Your task to perform on an android device: set an alarm Image 0: 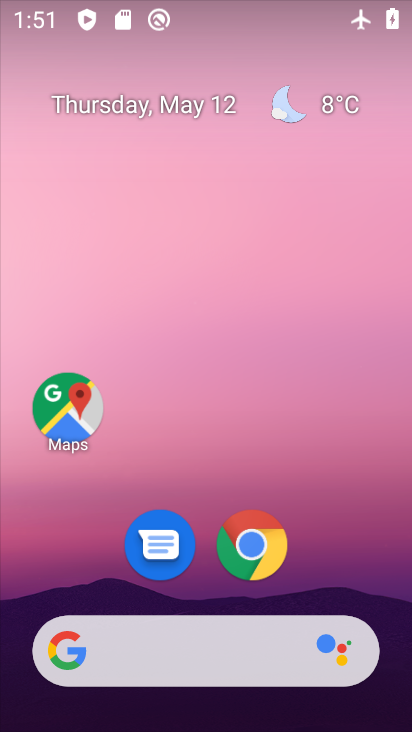
Step 0: drag from (393, 623) to (332, 84)
Your task to perform on an android device: set an alarm Image 1: 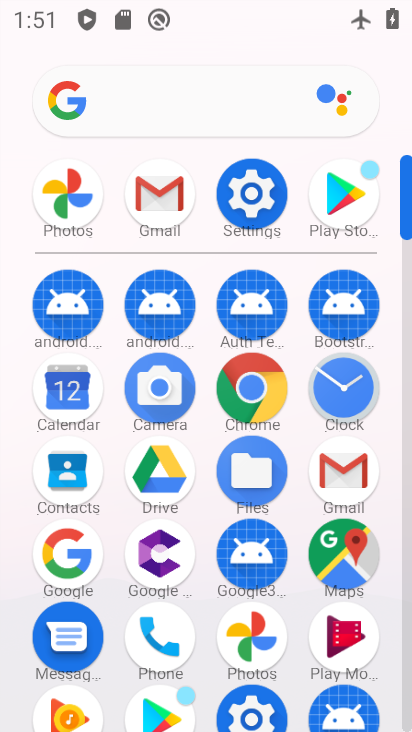
Step 1: click (408, 709)
Your task to perform on an android device: set an alarm Image 2: 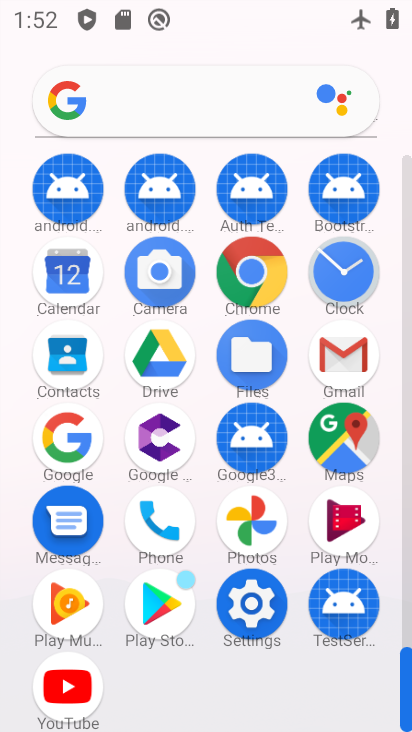
Step 2: click (342, 271)
Your task to perform on an android device: set an alarm Image 3: 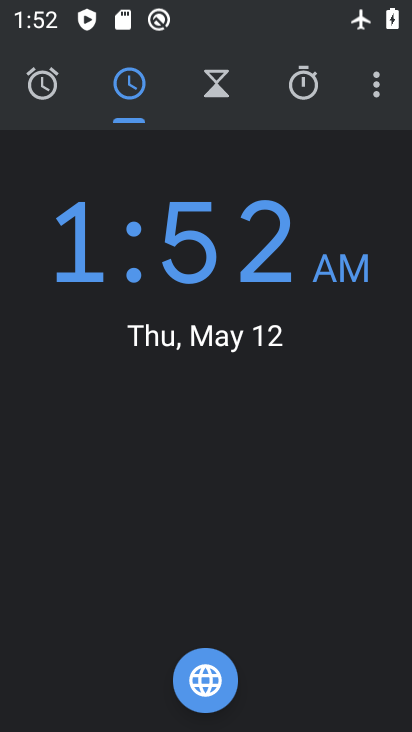
Step 3: click (44, 83)
Your task to perform on an android device: set an alarm Image 4: 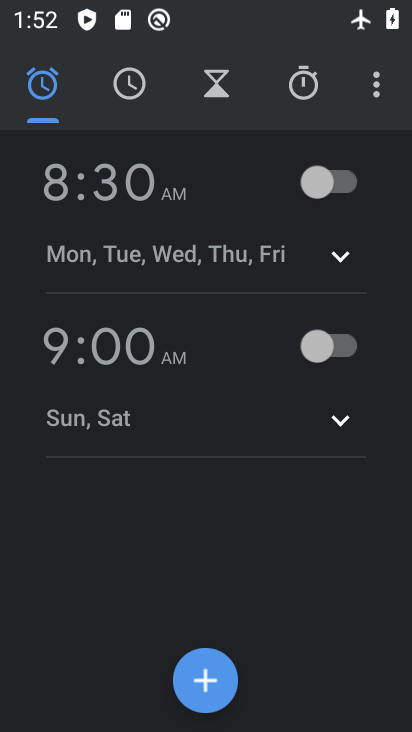
Step 4: click (64, 196)
Your task to perform on an android device: set an alarm Image 5: 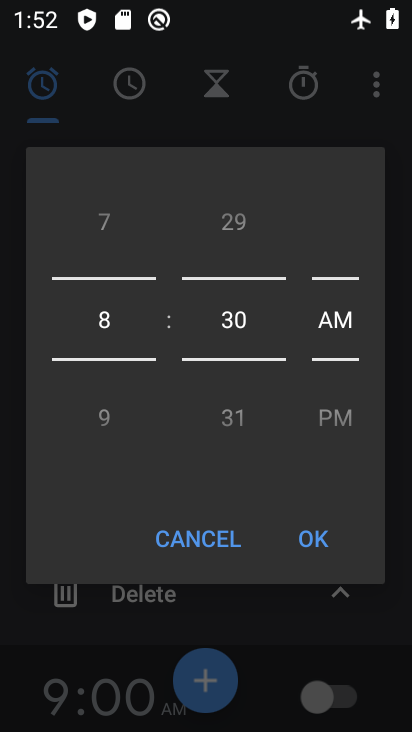
Step 5: drag from (112, 245) to (106, 454)
Your task to perform on an android device: set an alarm Image 6: 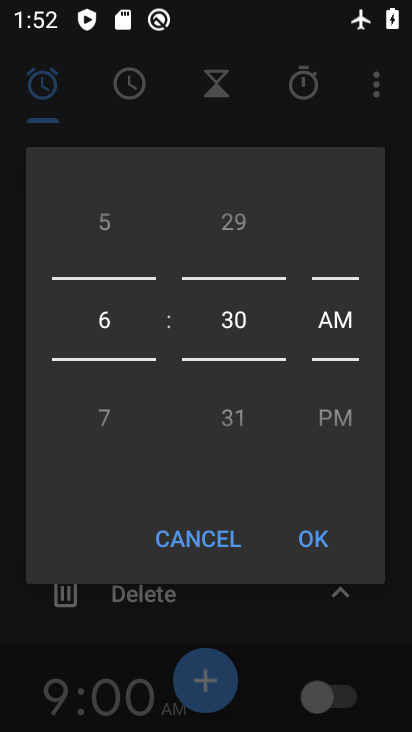
Step 6: click (318, 541)
Your task to perform on an android device: set an alarm Image 7: 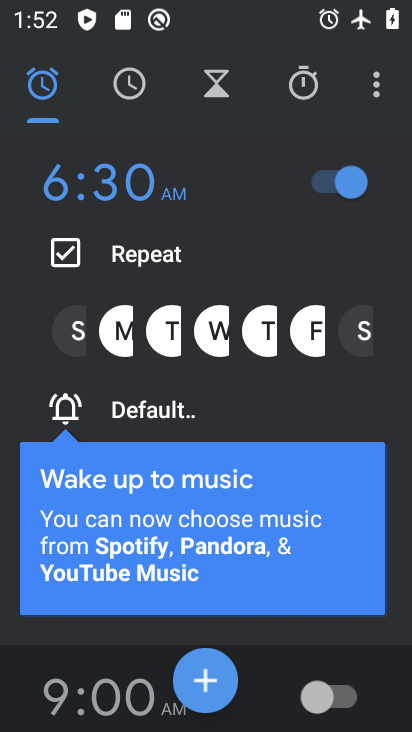
Step 7: click (351, 321)
Your task to perform on an android device: set an alarm Image 8: 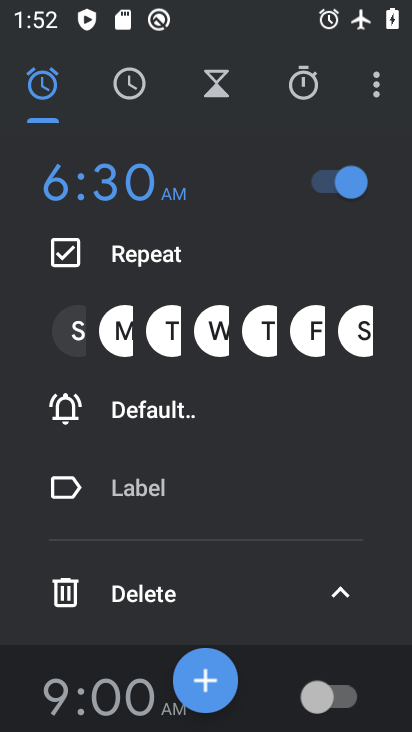
Step 8: click (339, 592)
Your task to perform on an android device: set an alarm Image 9: 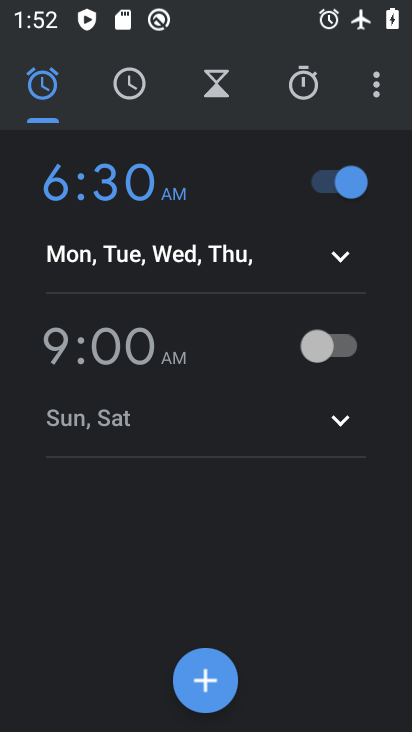
Step 9: task complete